Your task to perform on an android device: clear history in the chrome app Image 0: 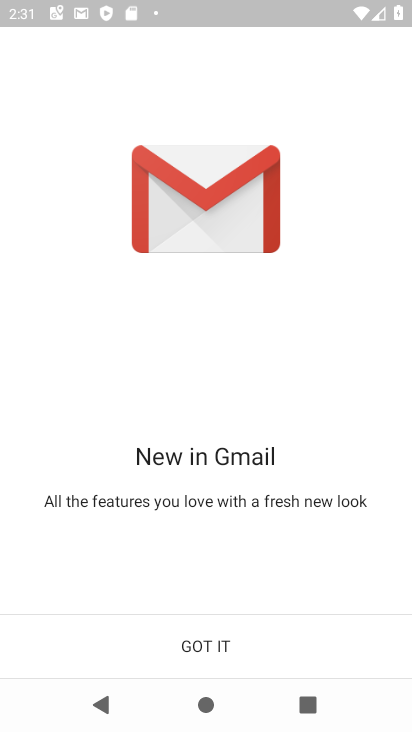
Step 0: click (191, 648)
Your task to perform on an android device: clear history in the chrome app Image 1: 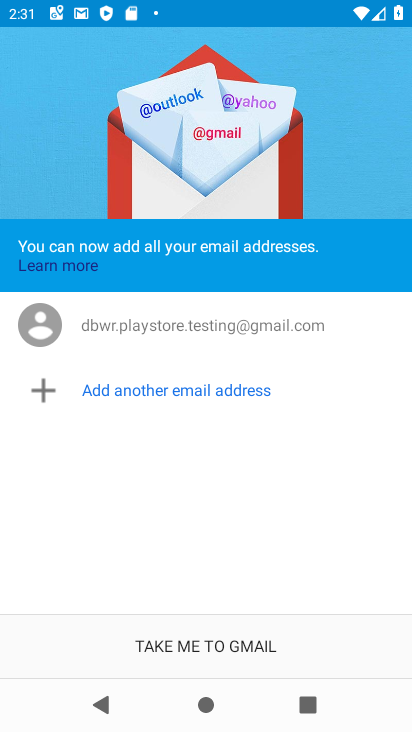
Step 1: press home button
Your task to perform on an android device: clear history in the chrome app Image 2: 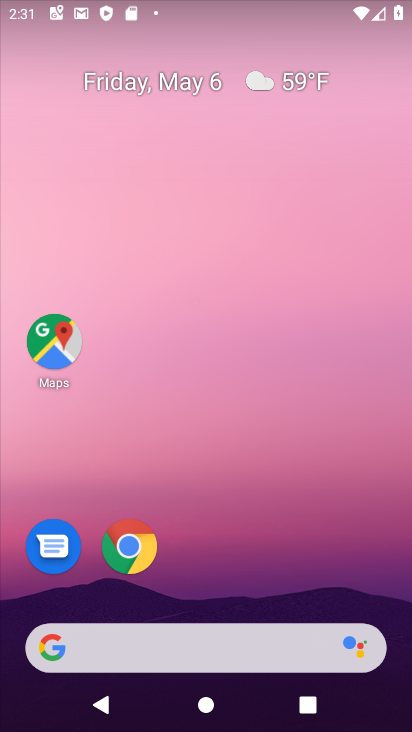
Step 2: click (131, 548)
Your task to perform on an android device: clear history in the chrome app Image 3: 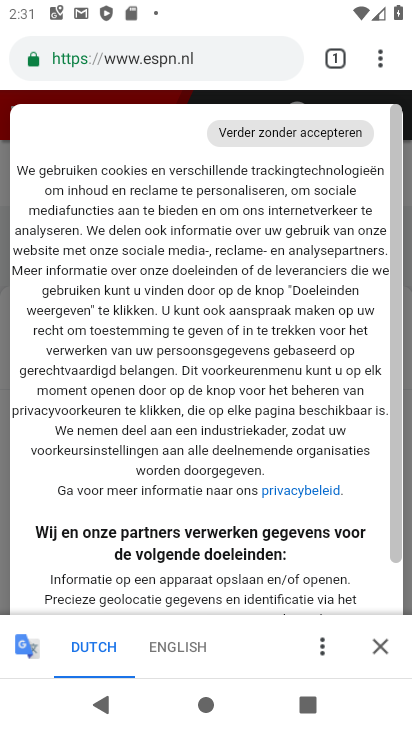
Step 3: click (378, 58)
Your task to perform on an android device: clear history in the chrome app Image 4: 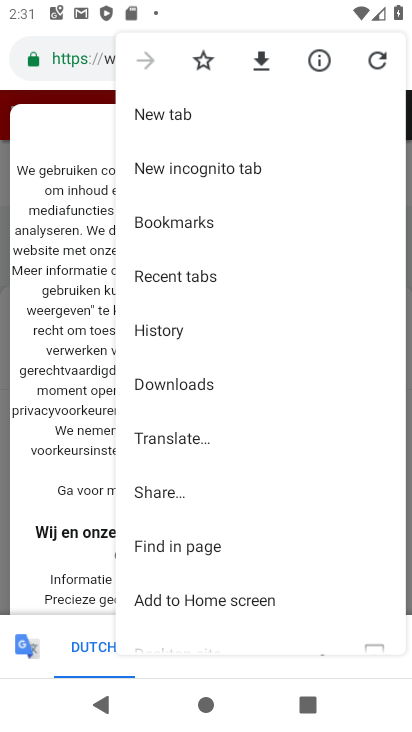
Step 4: click (168, 333)
Your task to perform on an android device: clear history in the chrome app Image 5: 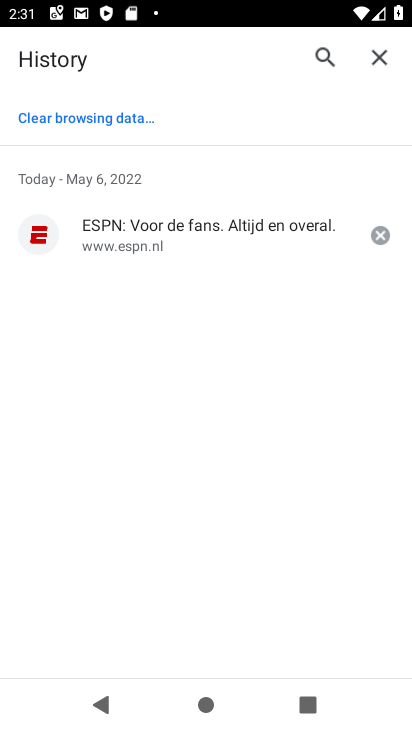
Step 5: click (98, 115)
Your task to perform on an android device: clear history in the chrome app Image 6: 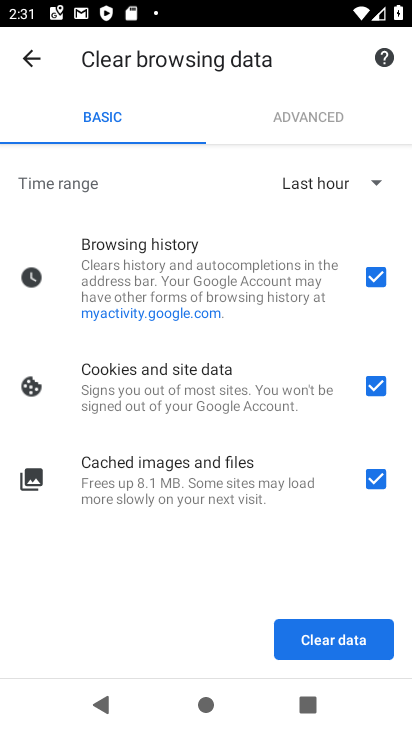
Step 6: click (351, 644)
Your task to perform on an android device: clear history in the chrome app Image 7: 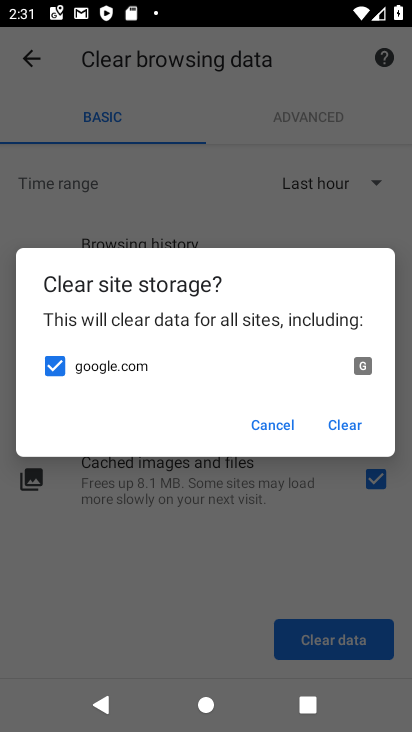
Step 7: click (350, 420)
Your task to perform on an android device: clear history in the chrome app Image 8: 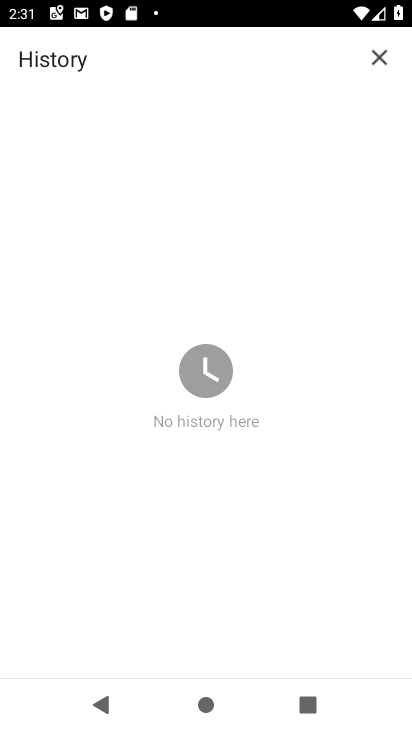
Step 8: task complete